Your task to perform on an android device: turn off data saver in the chrome app Image 0: 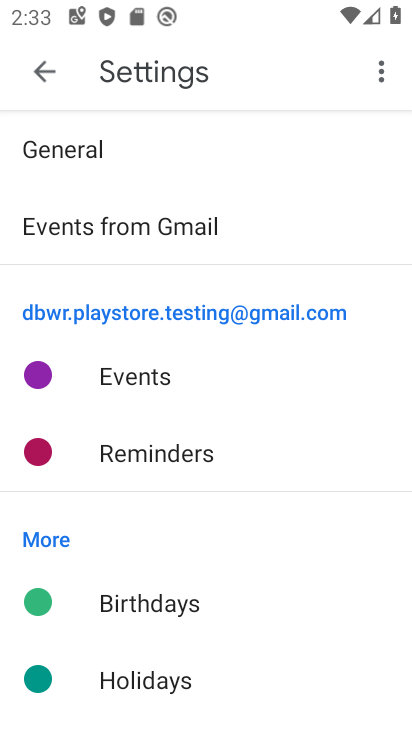
Step 0: click (251, 572)
Your task to perform on an android device: turn off data saver in the chrome app Image 1: 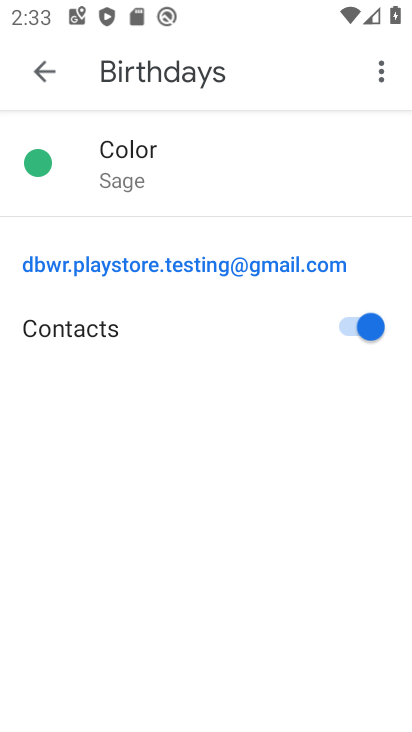
Step 1: press home button
Your task to perform on an android device: turn off data saver in the chrome app Image 2: 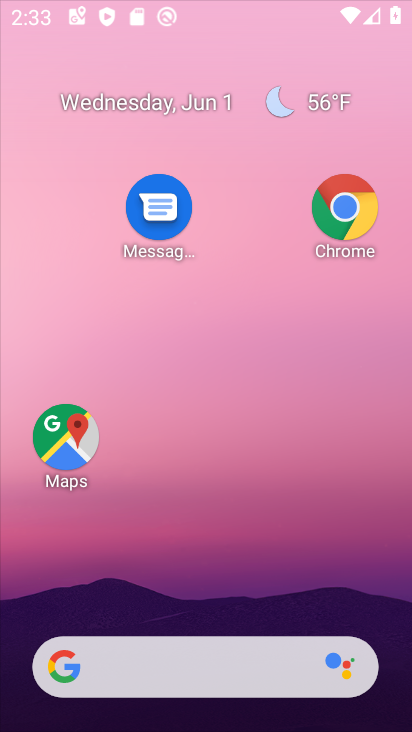
Step 2: drag from (282, 567) to (366, 105)
Your task to perform on an android device: turn off data saver in the chrome app Image 3: 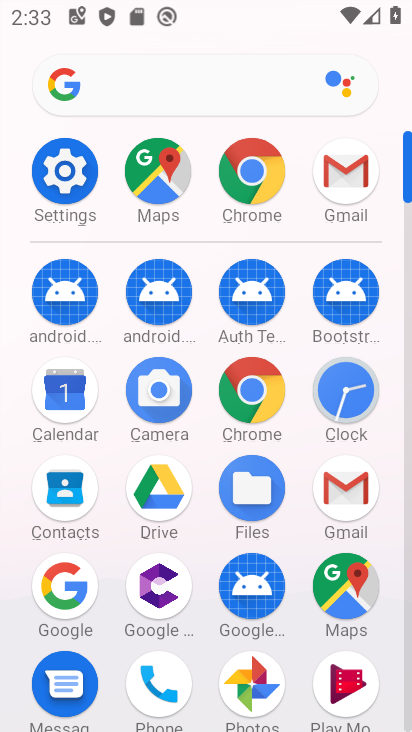
Step 3: click (249, 184)
Your task to perform on an android device: turn off data saver in the chrome app Image 4: 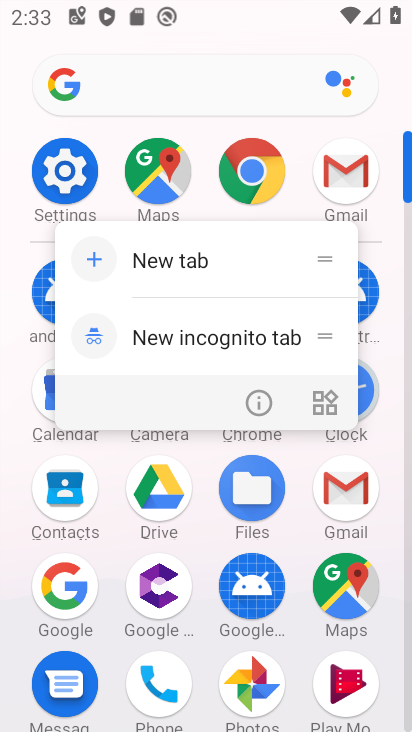
Step 4: click (257, 395)
Your task to perform on an android device: turn off data saver in the chrome app Image 5: 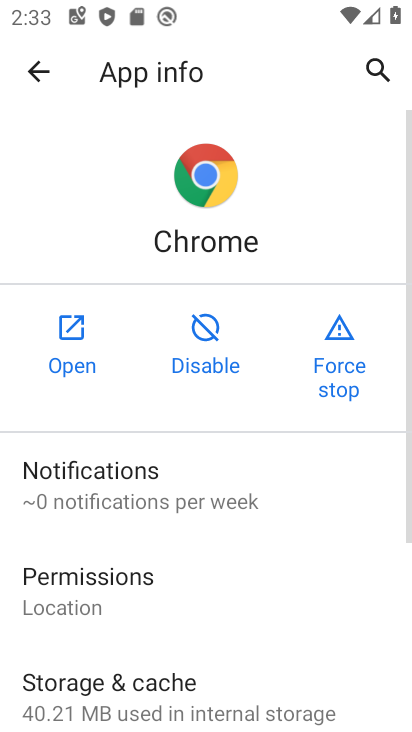
Step 5: click (86, 356)
Your task to perform on an android device: turn off data saver in the chrome app Image 6: 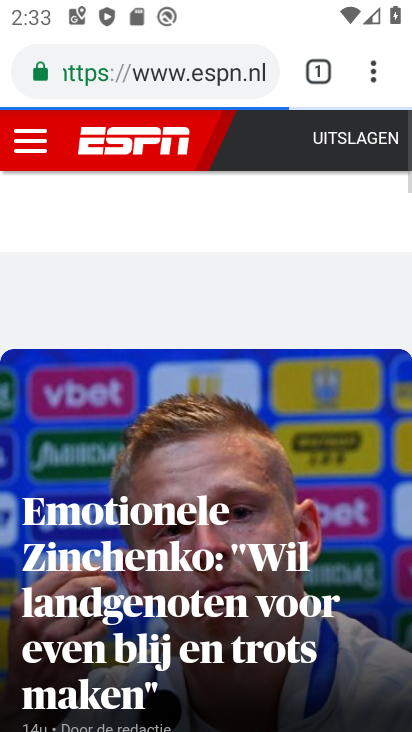
Step 6: drag from (202, 565) to (245, 75)
Your task to perform on an android device: turn off data saver in the chrome app Image 7: 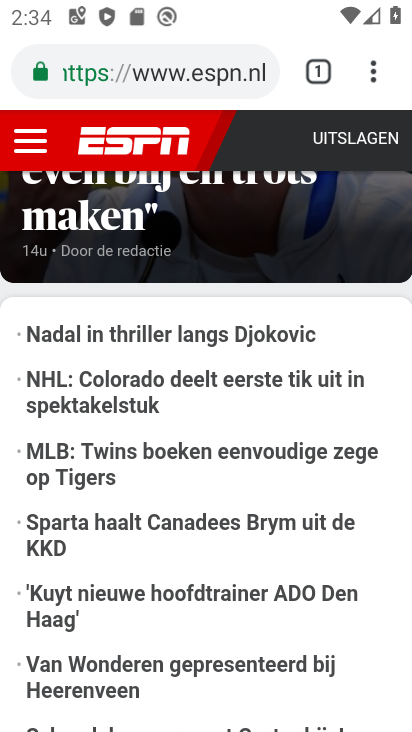
Step 7: drag from (231, 514) to (283, 175)
Your task to perform on an android device: turn off data saver in the chrome app Image 8: 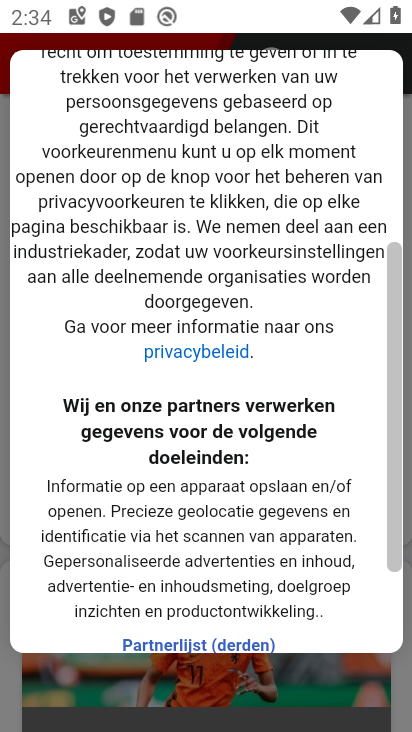
Step 8: drag from (223, 526) to (310, 48)
Your task to perform on an android device: turn off data saver in the chrome app Image 9: 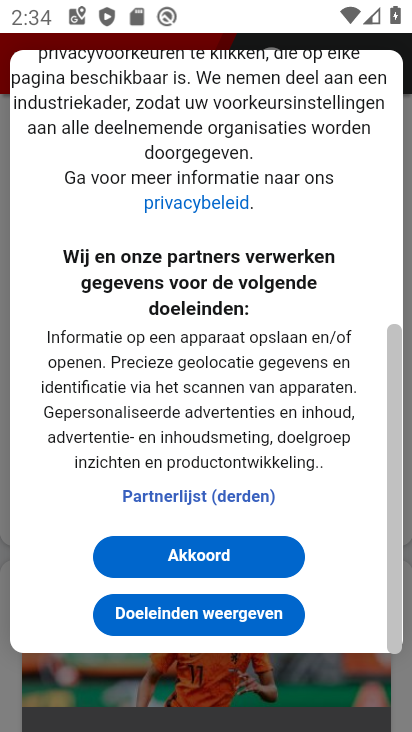
Step 9: drag from (200, 435) to (296, 158)
Your task to perform on an android device: turn off data saver in the chrome app Image 10: 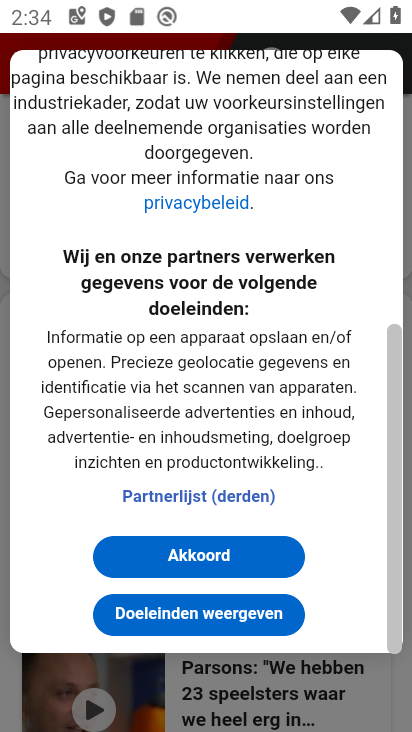
Step 10: press home button
Your task to perform on an android device: turn off data saver in the chrome app Image 11: 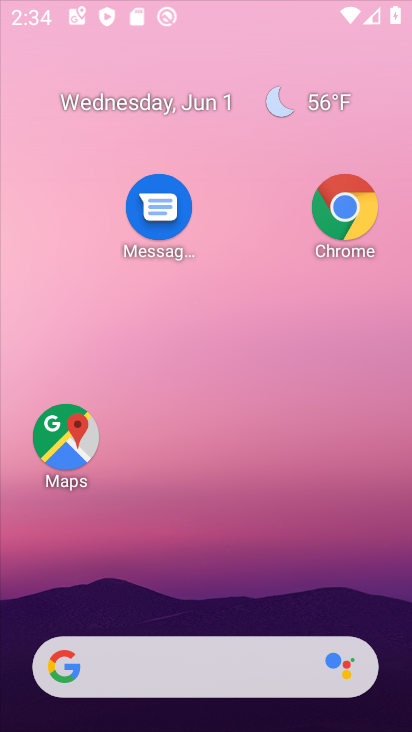
Step 11: drag from (211, 619) to (294, 133)
Your task to perform on an android device: turn off data saver in the chrome app Image 12: 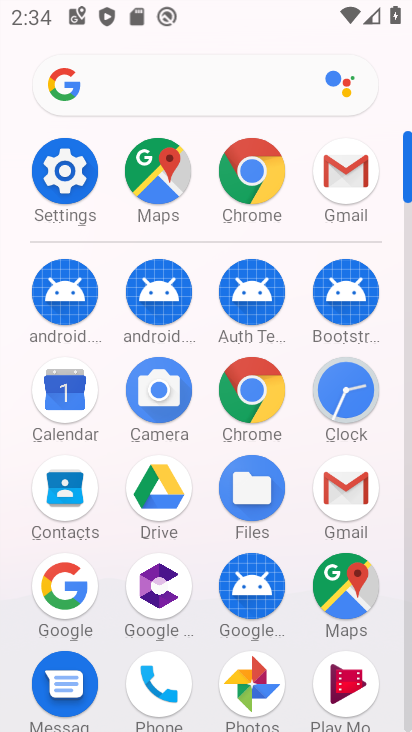
Step 12: click (258, 392)
Your task to perform on an android device: turn off data saver in the chrome app Image 13: 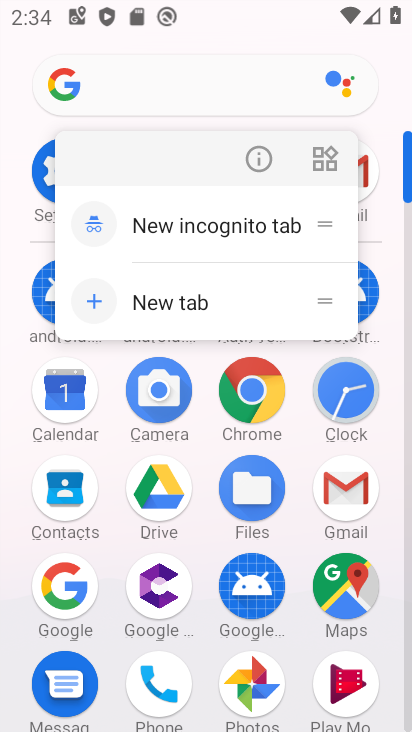
Step 13: click (268, 152)
Your task to perform on an android device: turn off data saver in the chrome app Image 14: 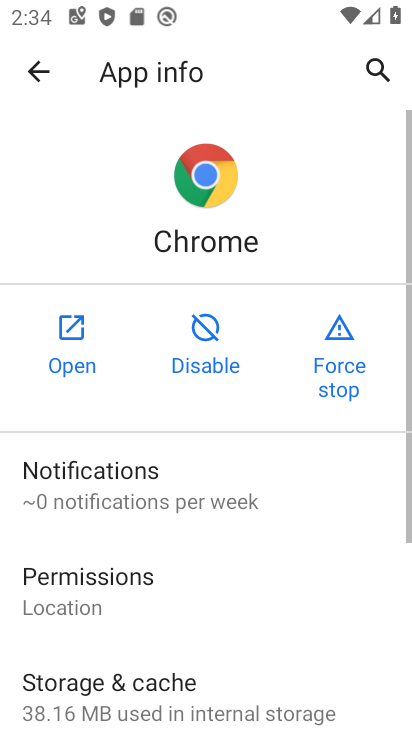
Step 14: click (68, 321)
Your task to perform on an android device: turn off data saver in the chrome app Image 15: 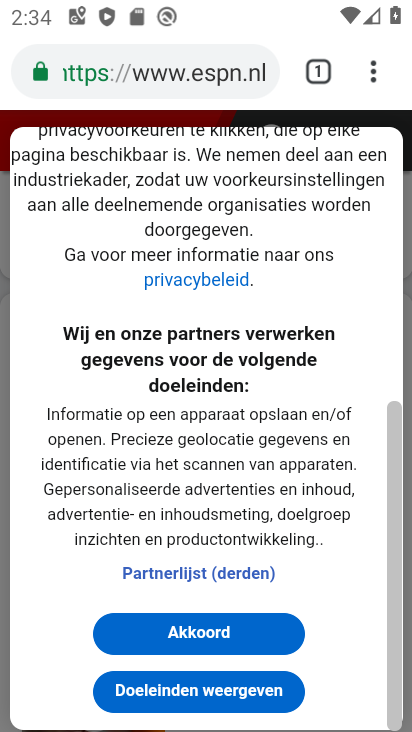
Step 15: drag from (297, 211) to (302, 130)
Your task to perform on an android device: turn off data saver in the chrome app Image 16: 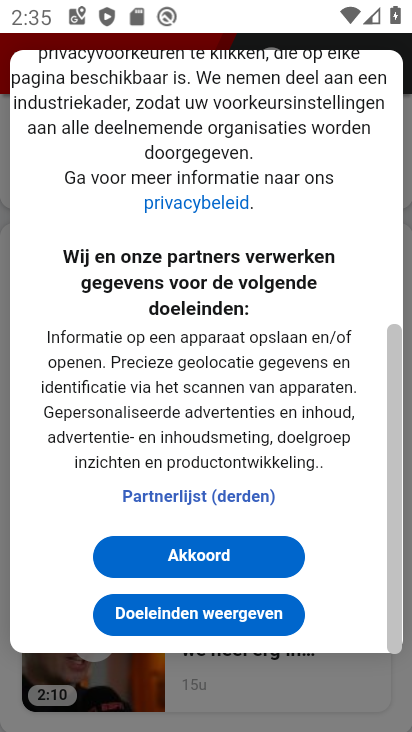
Step 16: drag from (200, 427) to (346, 155)
Your task to perform on an android device: turn off data saver in the chrome app Image 17: 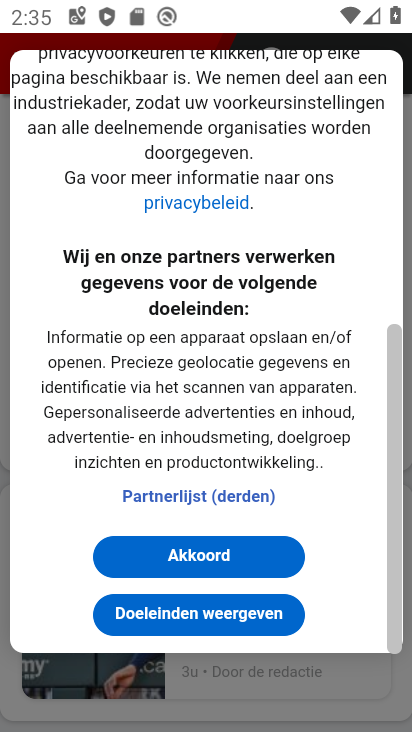
Step 17: press back button
Your task to perform on an android device: turn off data saver in the chrome app Image 18: 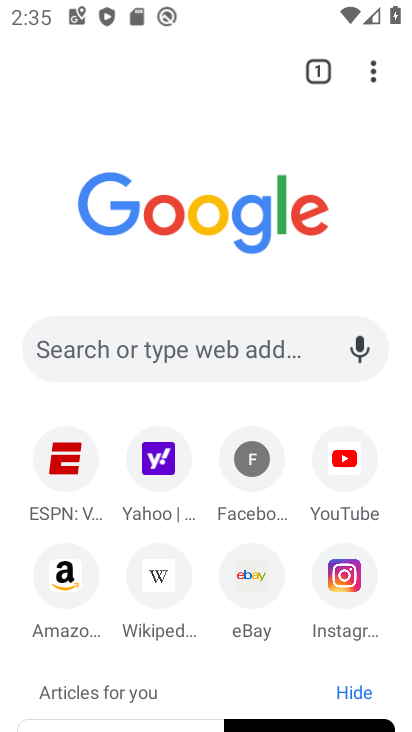
Step 18: click (365, 72)
Your task to perform on an android device: turn off data saver in the chrome app Image 19: 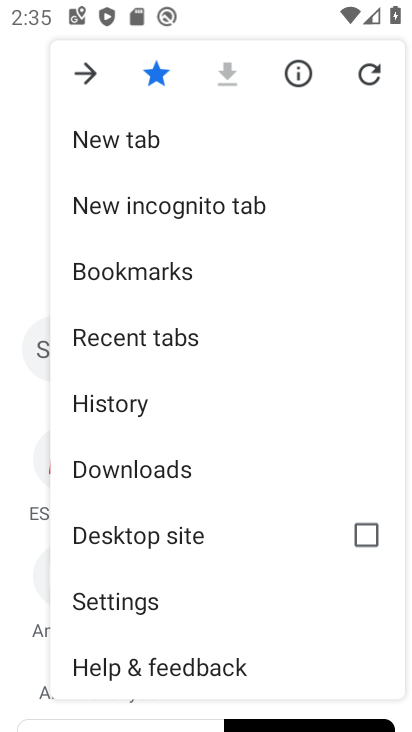
Step 19: drag from (132, 557) to (234, 123)
Your task to perform on an android device: turn off data saver in the chrome app Image 20: 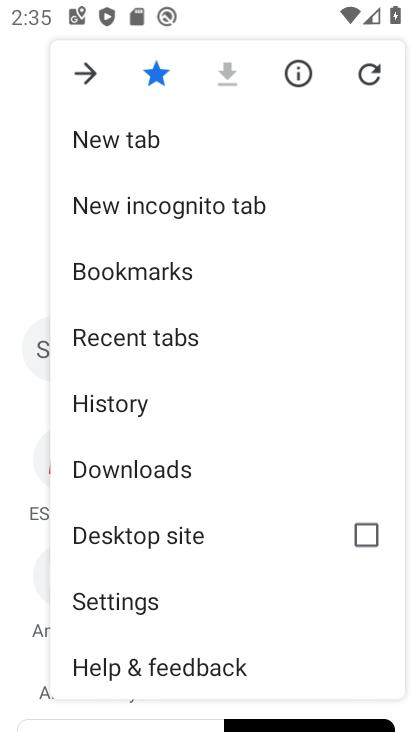
Step 20: click (146, 595)
Your task to perform on an android device: turn off data saver in the chrome app Image 21: 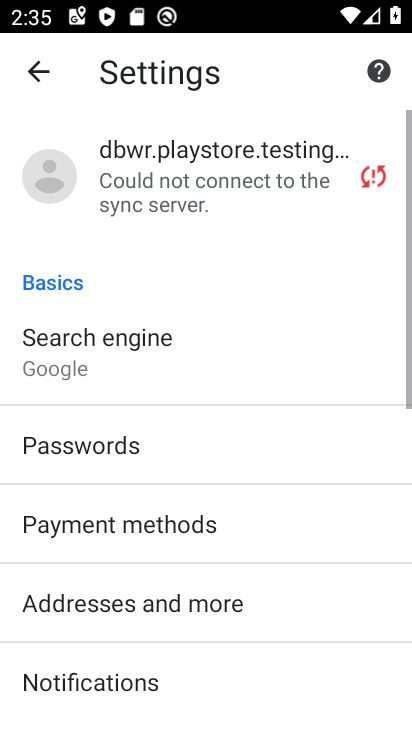
Step 21: drag from (130, 582) to (264, 104)
Your task to perform on an android device: turn off data saver in the chrome app Image 22: 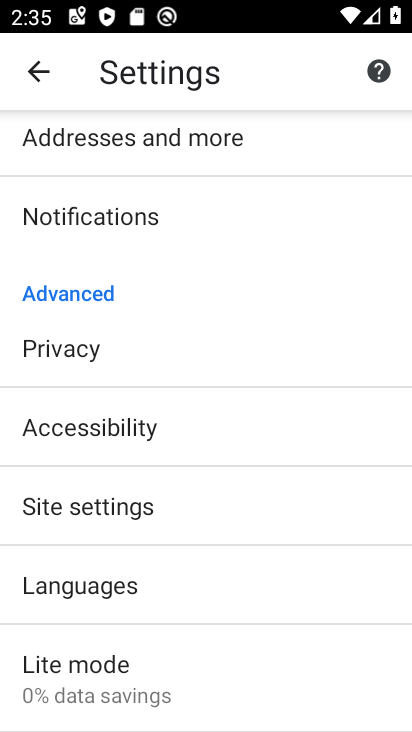
Step 22: drag from (233, 584) to (261, 263)
Your task to perform on an android device: turn off data saver in the chrome app Image 23: 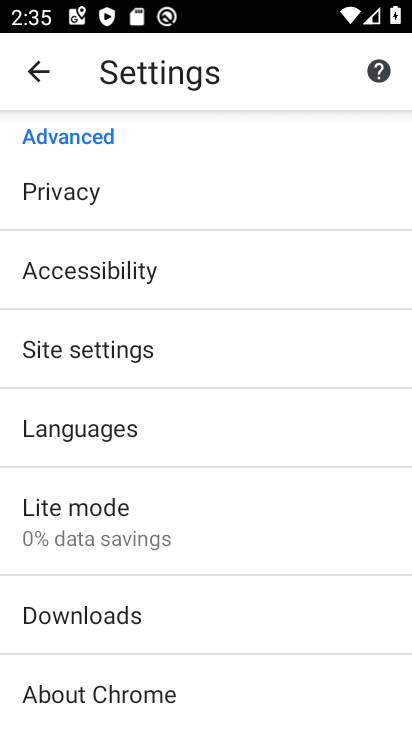
Step 23: click (119, 356)
Your task to perform on an android device: turn off data saver in the chrome app Image 24: 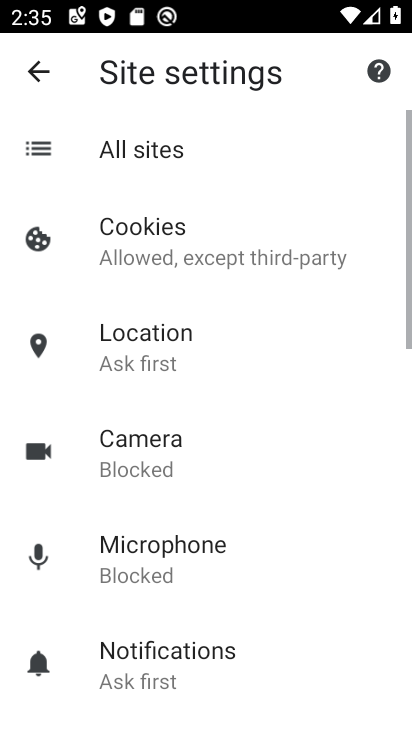
Step 24: drag from (281, 487) to (287, 228)
Your task to perform on an android device: turn off data saver in the chrome app Image 25: 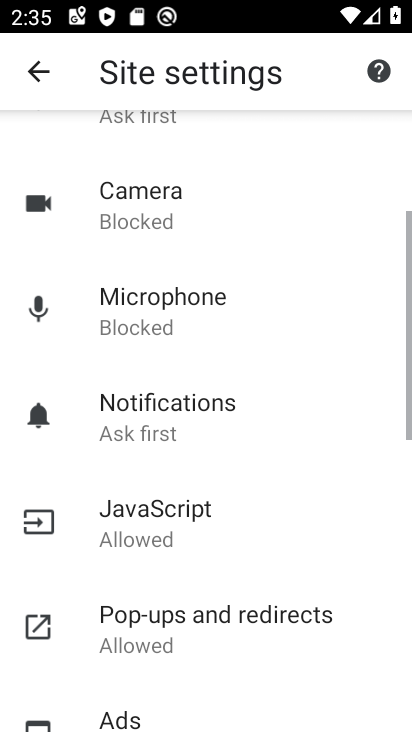
Step 25: drag from (287, 218) to (276, 529)
Your task to perform on an android device: turn off data saver in the chrome app Image 26: 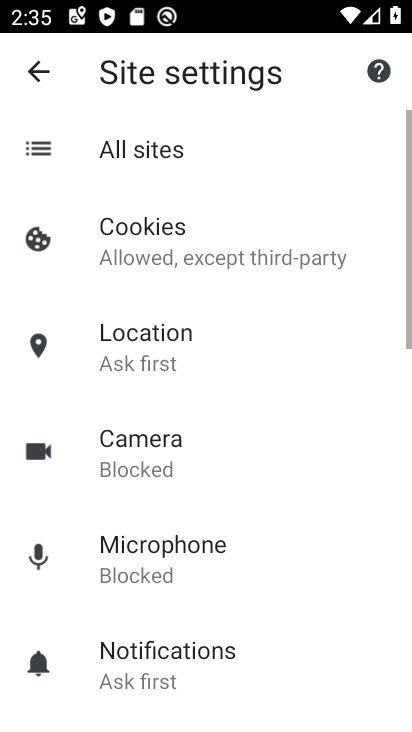
Step 26: drag from (271, 490) to (322, 130)
Your task to perform on an android device: turn off data saver in the chrome app Image 27: 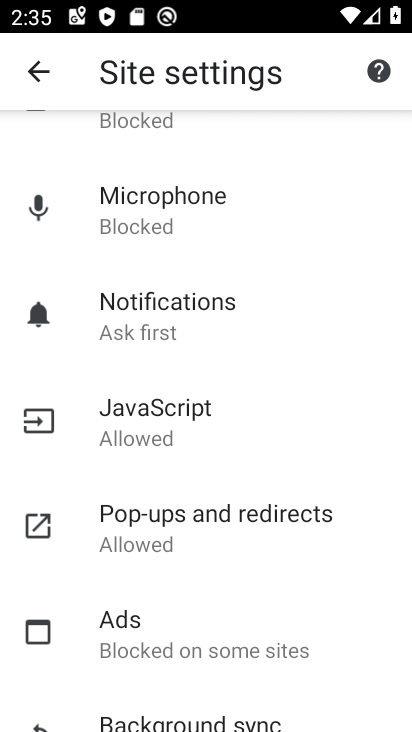
Step 27: drag from (172, 614) to (240, 204)
Your task to perform on an android device: turn off data saver in the chrome app Image 28: 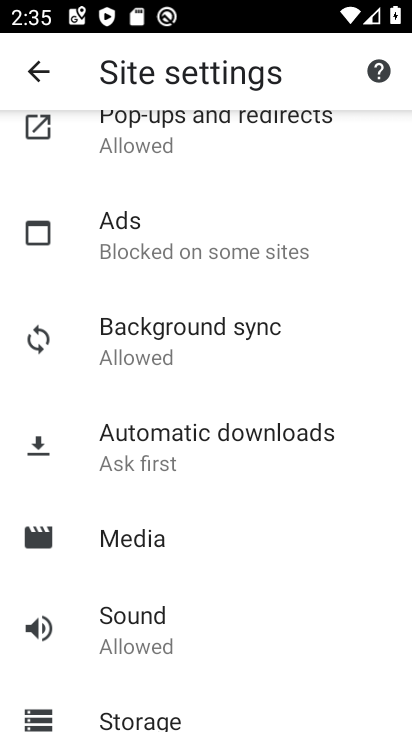
Step 28: drag from (231, 625) to (232, 331)
Your task to perform on an android device: turn off data saver in the chrome app Image 29: 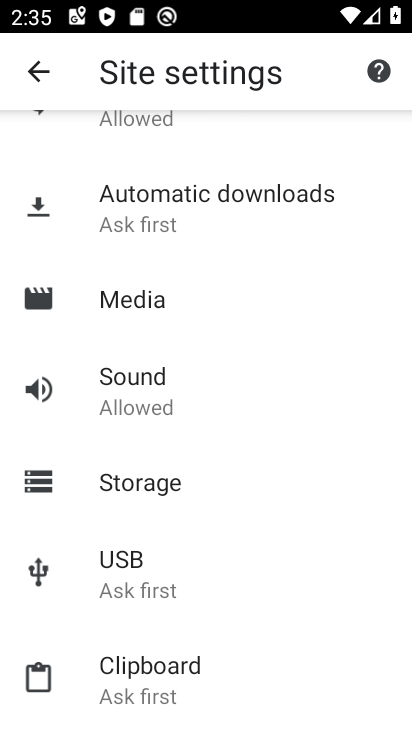
Step 29: drag from (213, 546) to (277, 278)
Your task to perform on an android device: turn off data saver in the chrome app Image 30: 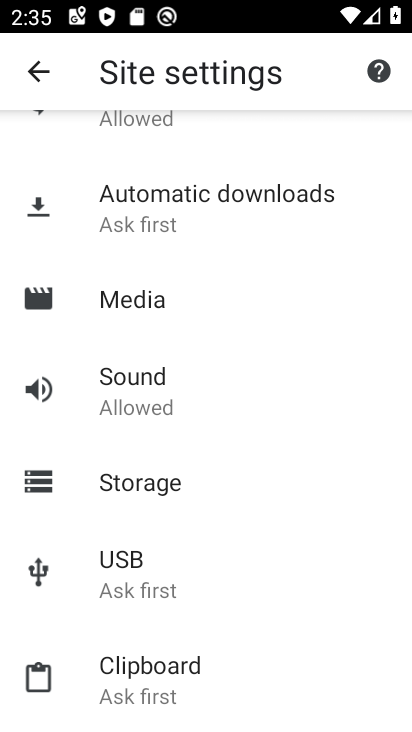
Step 30: drag from (264, 249) to (307, 728)
Your task to perform on an android device: turn off data saver in the chrome app Image 31: 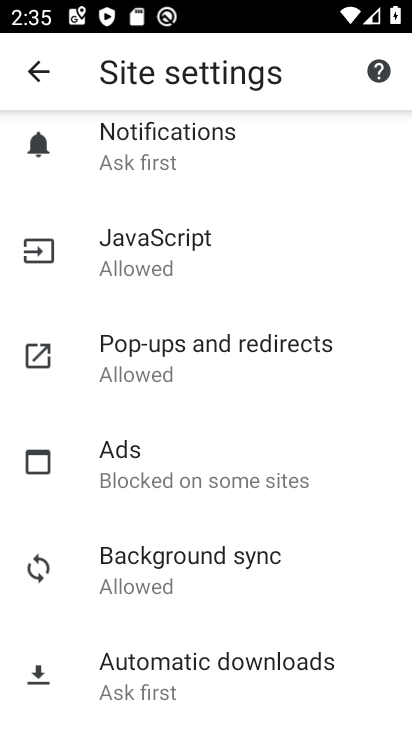
Step 31: click (29, 73)
Your task to perform on an android device: turn off data saver in the chrome app Image 32: 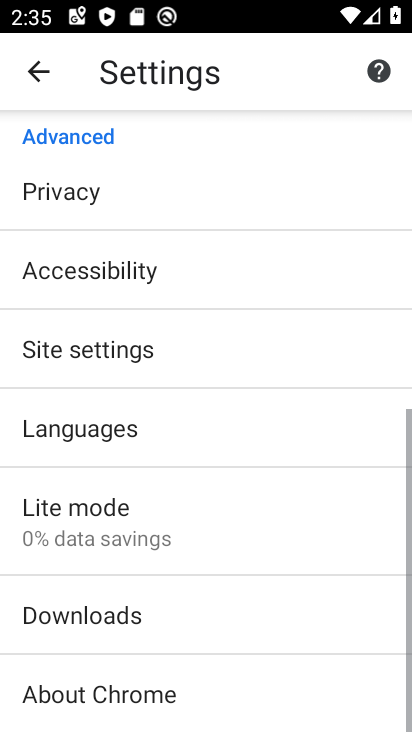
Step 32: click (151, 495)
Your task to perform on an android device: turn off data saver in the chrome app Image 33: 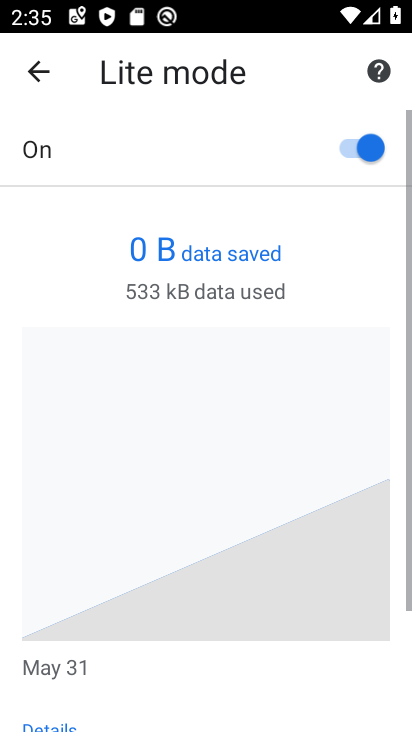
Step 33: drag from (226, 489) to (266, 141)
Your task to perform on an android device: turn off data saver in the chrome app Image 34: 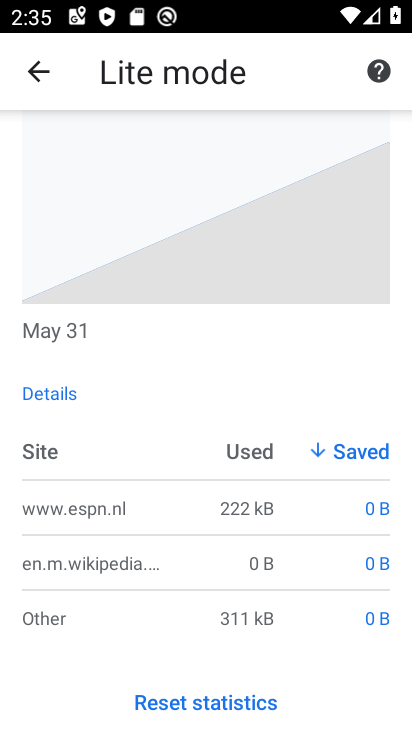
Step 34: drag from (221, 504) to (264, 148)
Your task to perform on an android device: turn off data saver in the chrome app Image 35: 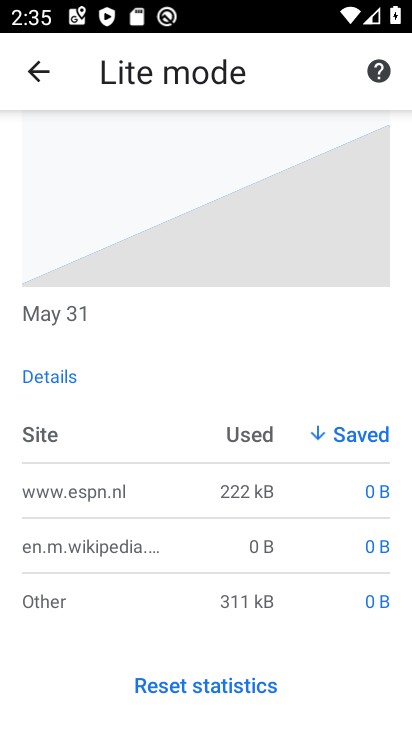
Step 35: drag from (158, 523) to (214, 244)
Your task to perform on an android device: turn off data saver in the chrome app Image 36: 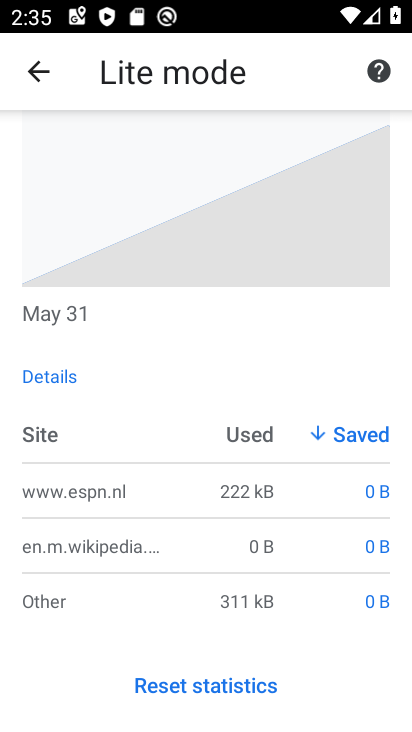
Step 36: drag from (242, 257) to (302, 730)
Your task to perform on an android device: turn off data saver in the chrome app Image 37: 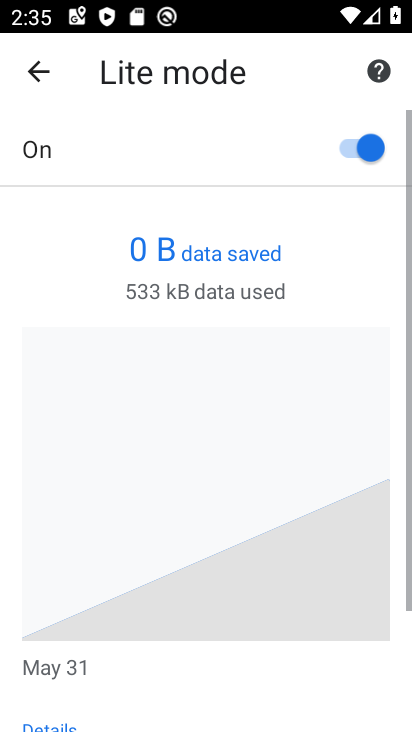
Step 37: drag from (239, 236) to (397, 671)
Your task to perform on an android device: turn off data saver in the chrome app Image 38: 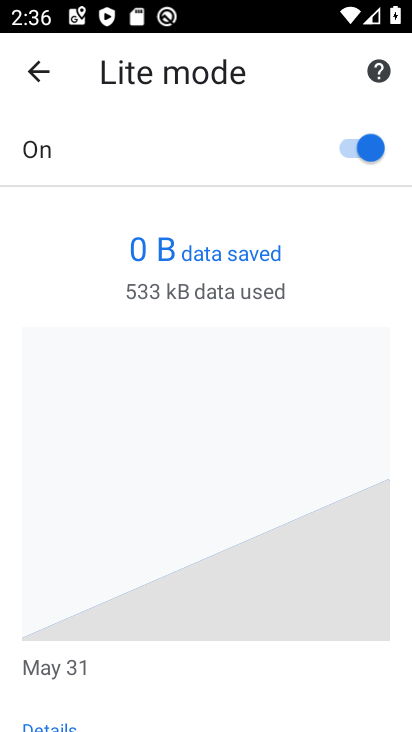
Step 38: click (354, 140)
Your task to perform on an android device: turn off data saver in the chrome app Image 39: 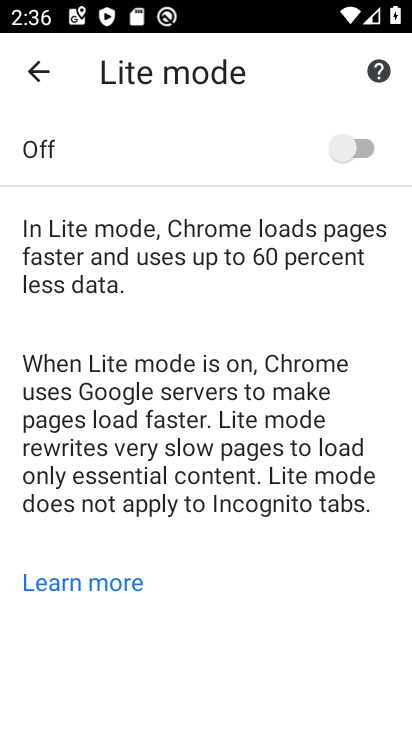
Step 39: task complete